Your task to perform on an android device: When is my next meeting? Image 0: 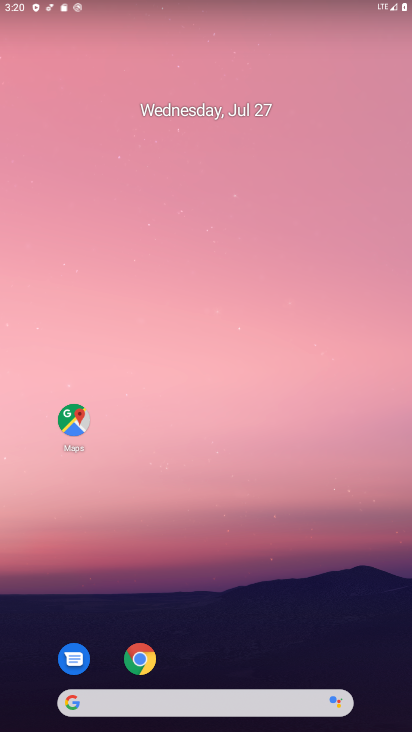
Step 0: drag from (244, 651) to (268, 55)
Your task to perform on an android device: When is my next meeting? Image 1: 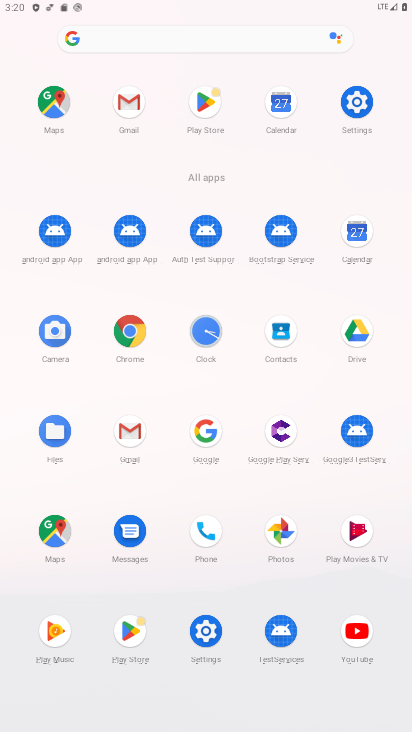
Step 1: click (279, 109)
Your task to perform on an android device: When is my next meeting? Image 2: 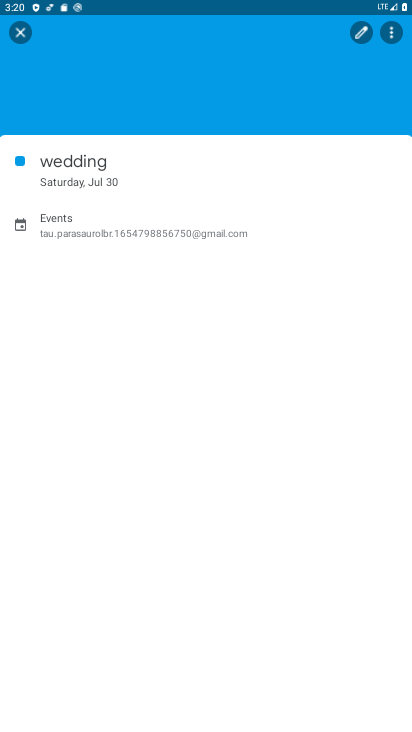
Step 2: click (22, 29)
Your task to perform on an android device: When is my next meeting? Image 3: 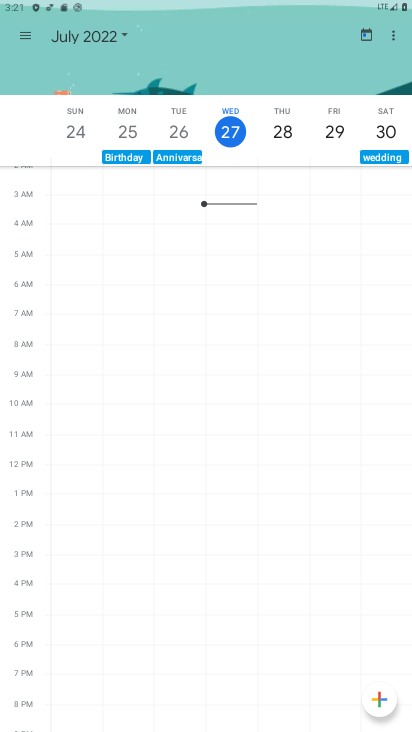
Step 3: click (19, 37)
Your task to perform on an android device: When is my next meeting? Image 4: 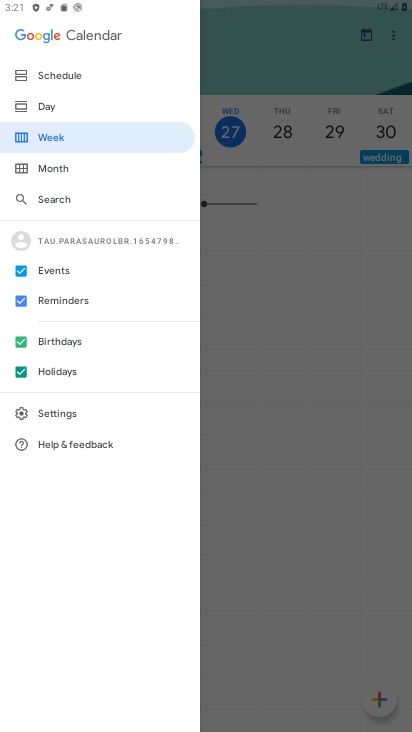
Step 4: click (24, 73)
Your task to perform on an android device: When is my next meeting? Image 5: 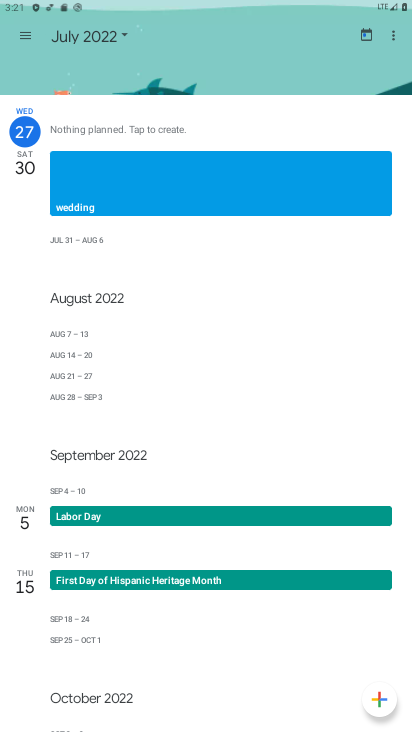
Step 5: drag from (145, 392) to (152, 196)
Your task to perform on an android device: When is my next meeting? Image 6: 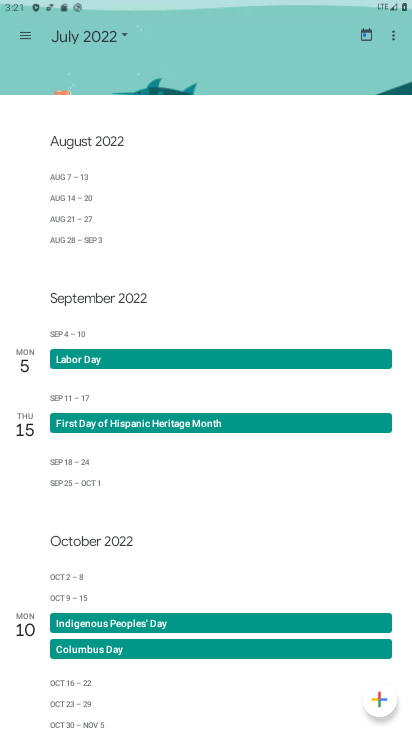
Step 6: drag from (158, 519) to (168, 262)
Your task to perform on an android device: When is my next meeting? Image 7: 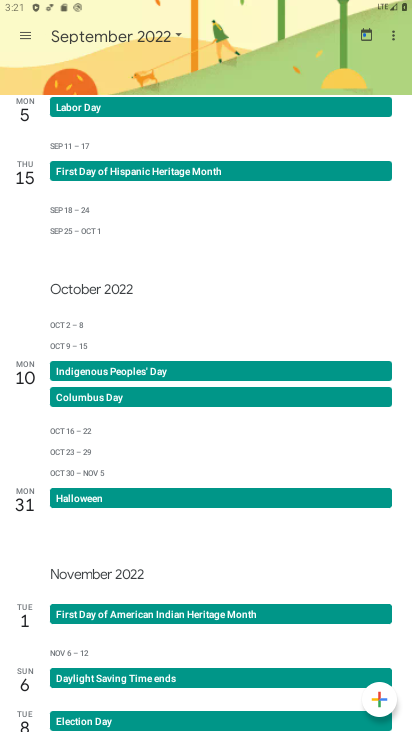
Step 7: drag from (126, 494) to (144, 282)
Your task to perform on an android device: When is my next meeting? Image 8: 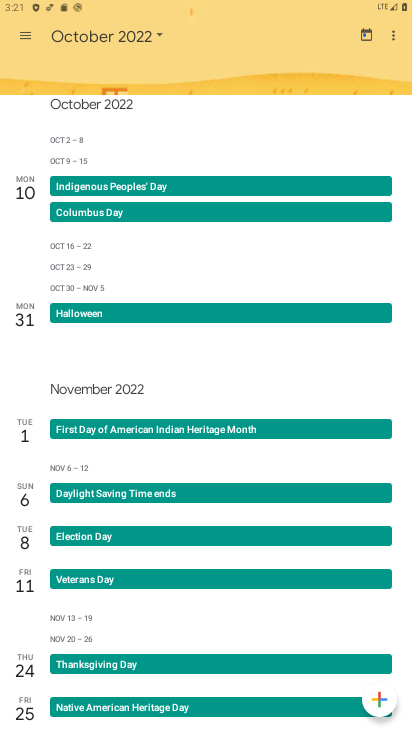
Step 8: drag from (117, 586) to (135, 381)
Your task to perform on an android device: When is my next meeting? Image 9: 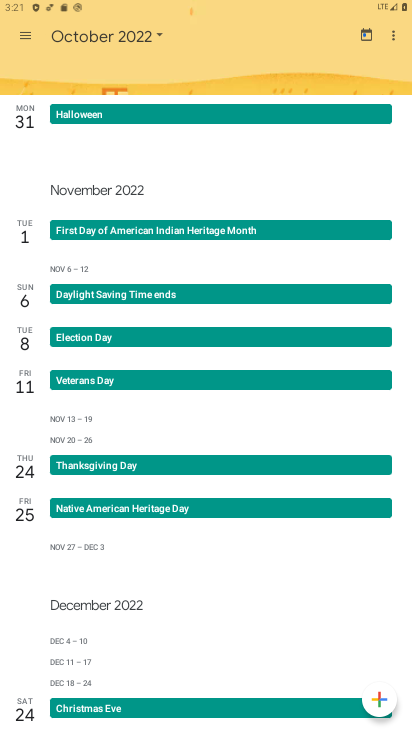
Step 9: drag from (127, 562) to (120, 381)
Your task to perform on an android device: When is my next meeting? Image 10: 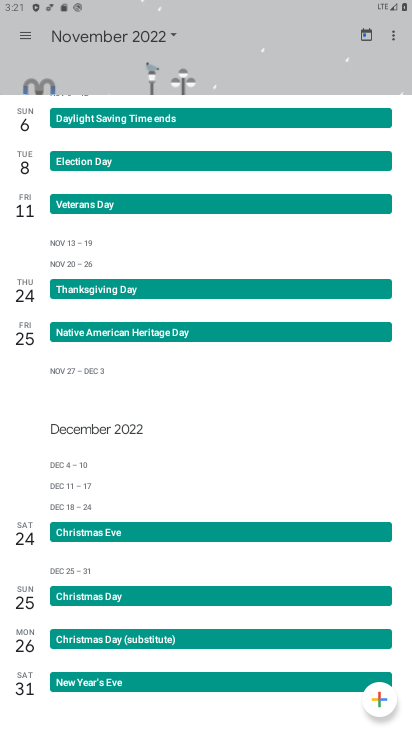
Step 10: drag from (117, 573) to (126, 362)
Your task to perform on an android device: When is my next meeting? Image 11: 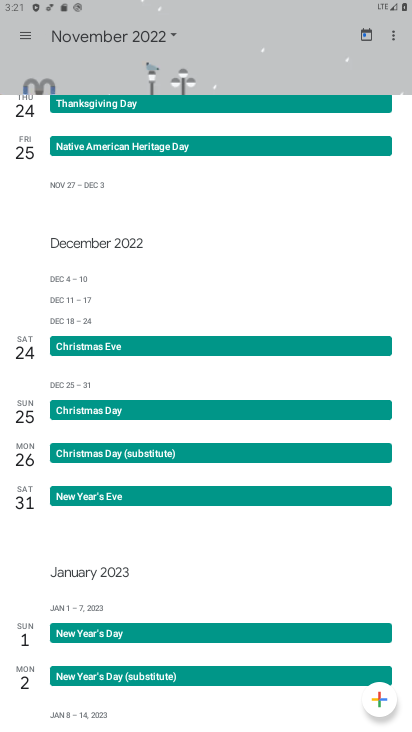
Step 11: click (26, 29)
Your task to perform on an android device: When is my next meeting? Image 12: 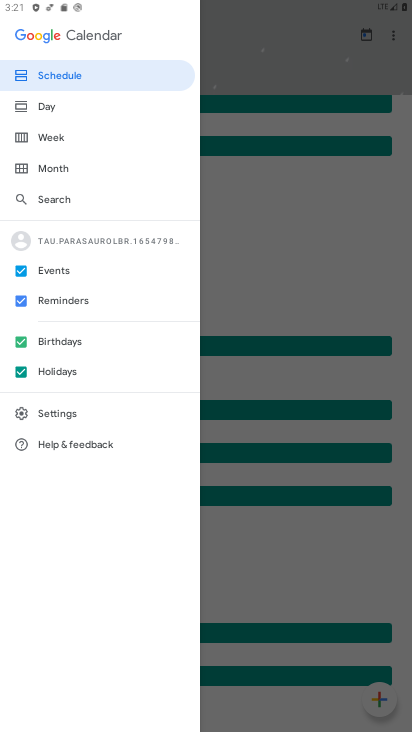
Step 12: click (25, 375)
Your task to perform on an android device: When is my next meeting? Image 13: 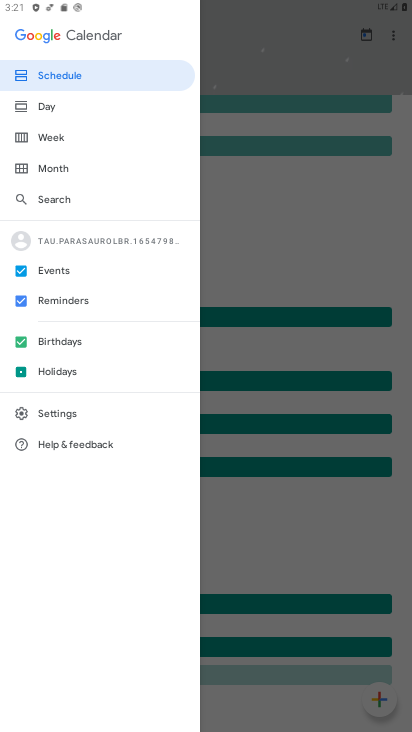
Step 13: click (20, 346)
Your task to perform on an android device: When is my next meeting? Image 14: 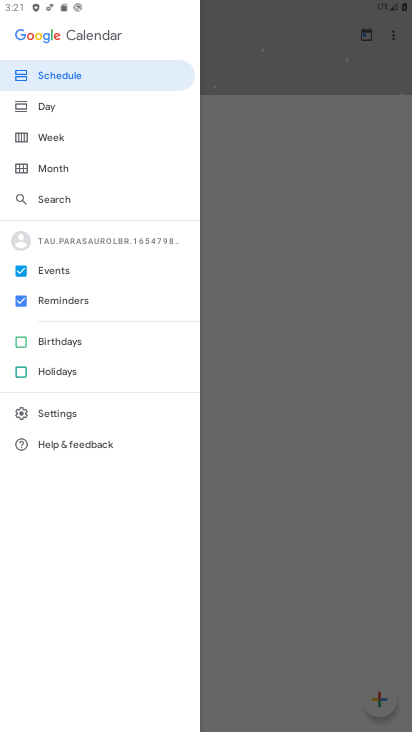
Step 14: click (26, 297)
Your task to perform on an android device: When is my next meeting? Image 15: 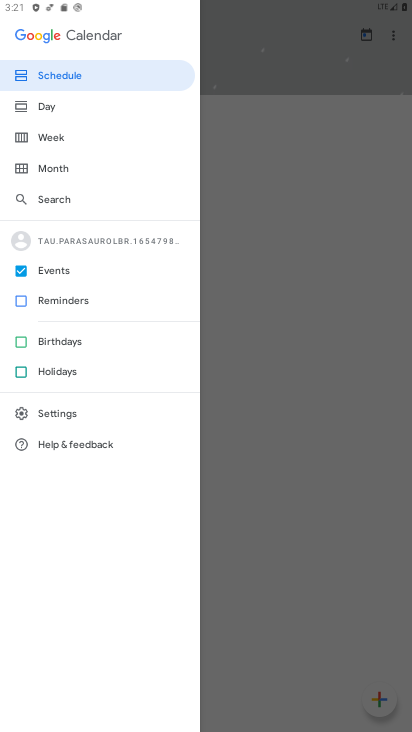
Step 15: click (45, 81)
Your task to perform on an android device: When is my next meeting? Image 16: 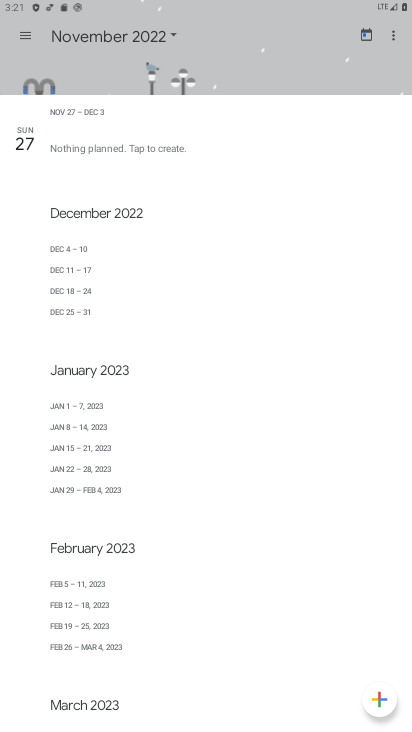
Step 16: task complete